Your task to perform on an android device: Open Amazon Image 0: 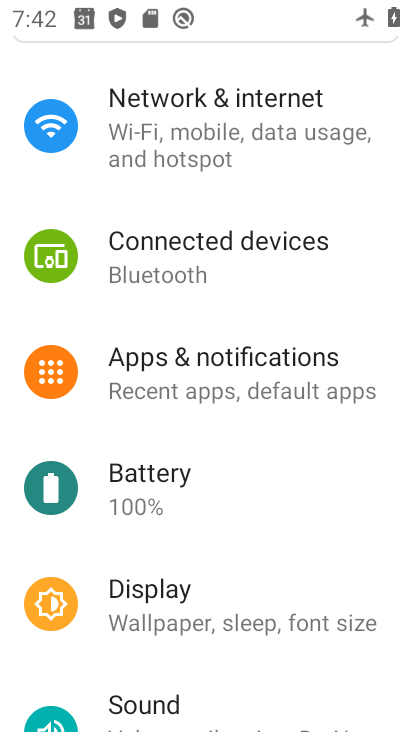
Step 0: press back button
Your task to perform on an android device: Open Amazon Image 1: 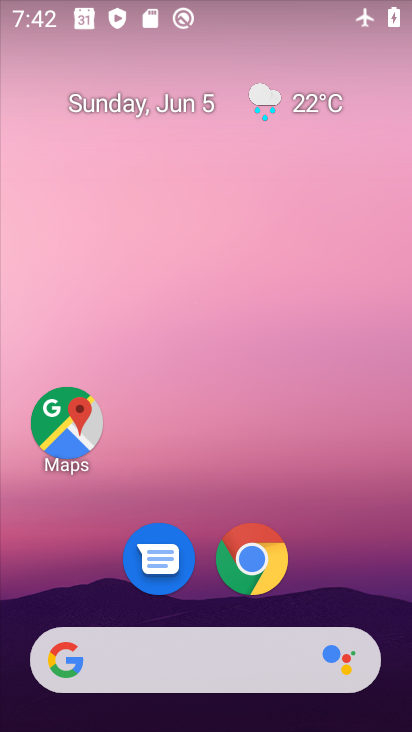
Step 1: click (253, 555)
Your task to perform on an android device: Open Amazon Image 2: 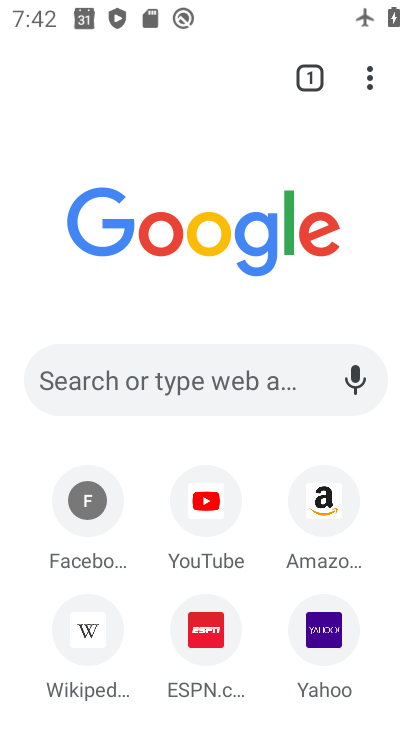
Step 2: click (326, 500)
Your task to perform on an android device: Open Amazon Image 3: 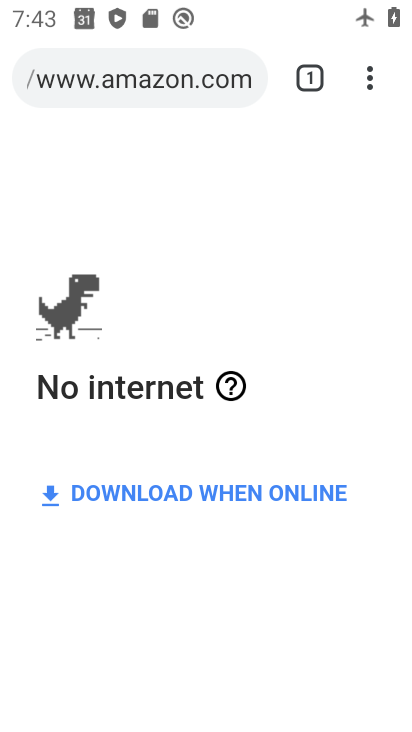
Step 3: task complete